Your task to perform on an android device: Open display settings Image 0: 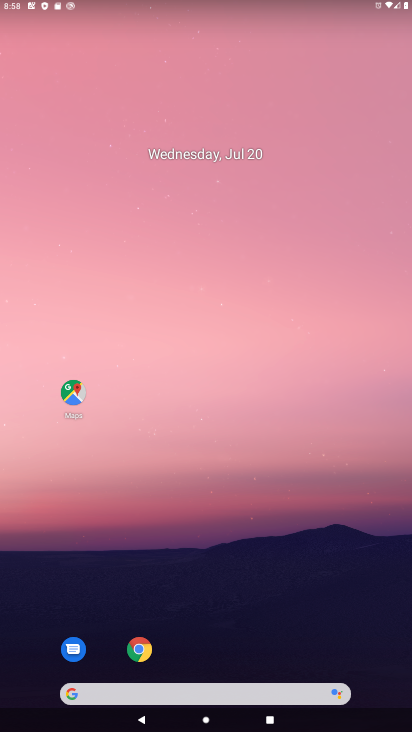
Step 0: drag from (188, 659) to (183, 259)
Your task to perform on an android device: Open display settings Image 1: 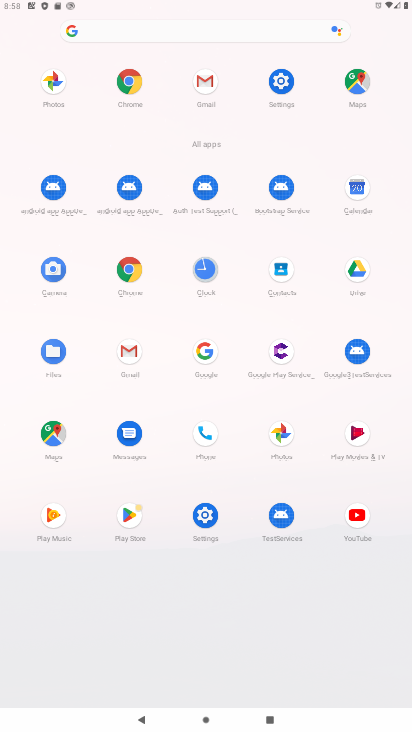
Step 1: click (276, 76)
Your task to perform on an android device: Open display settings Image 2: 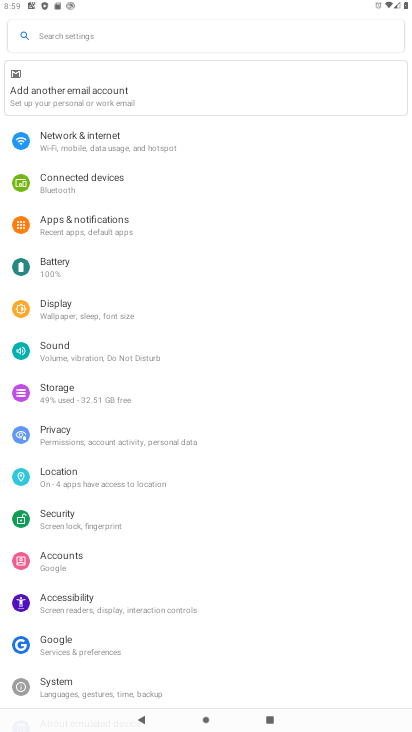
Step 2: click (52, 316)
Your task to perform on an android device: Open display settings Image 3: 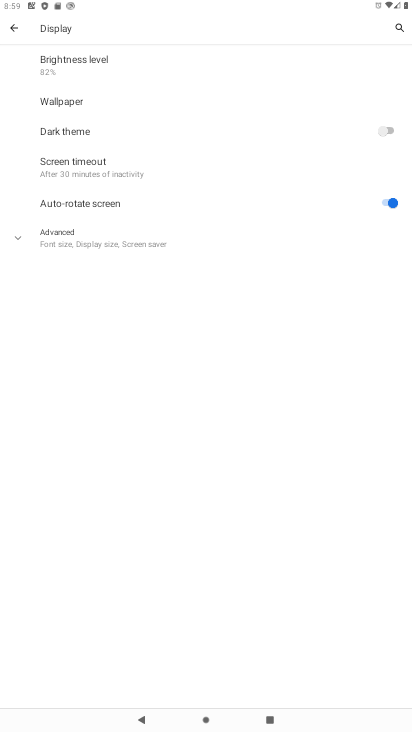
Step 3: click (57, 239)
Your task to perform on an android device: Open display settings Image 4: 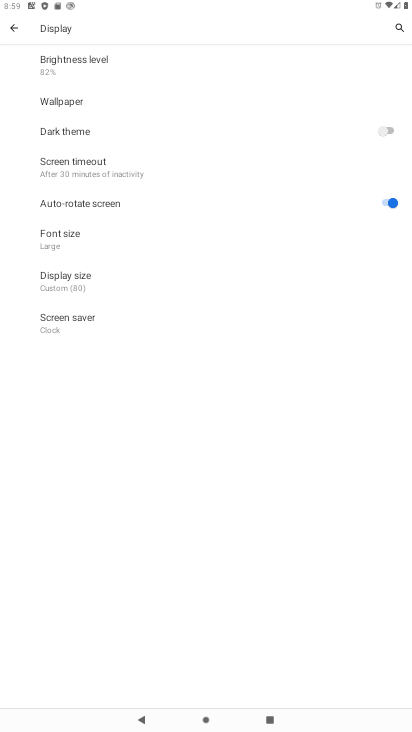
Step 4: task complete